Your task to perform on an android device: Search for sushi restaurants on Maps Image 0: 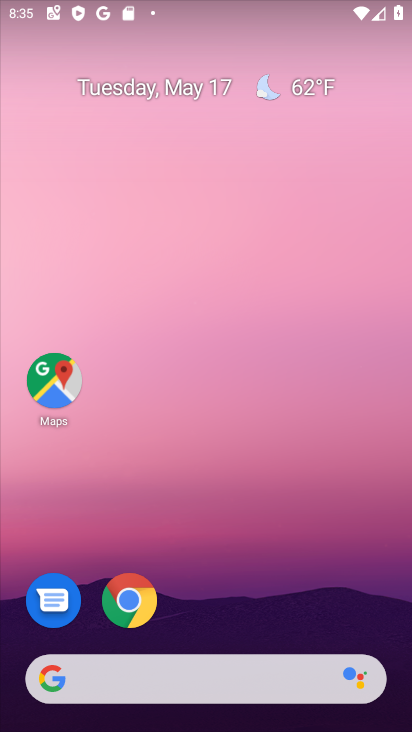
Step 0: drag from (242, 726) to (238, 100)
Your task to perform on an android device: Search for sushi restaurants on Maps Image 1: 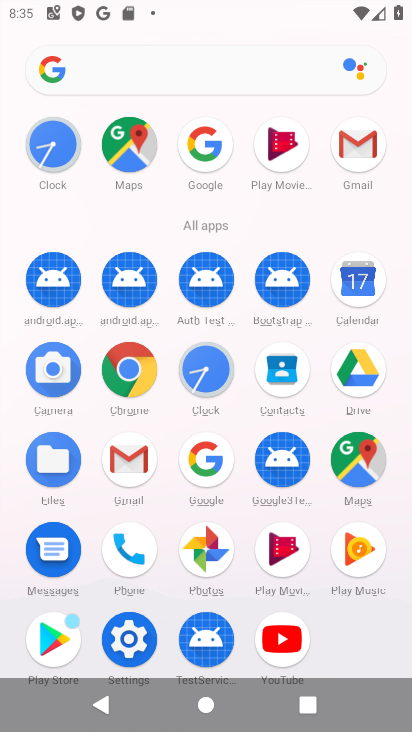
Step 1: click (352, 458)
Your task to perform on an android device: Search for sushi restaurants on Maps Image 2: 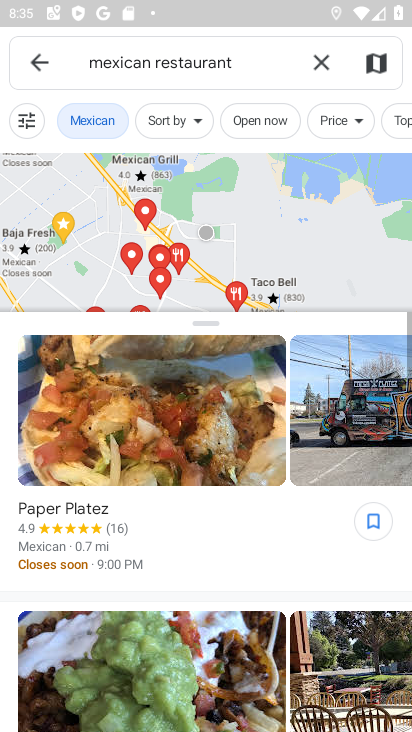
Step 2: click (325, 63)
Your task to perform on an android device: Search for sushi restaurants on Maps Image 3: 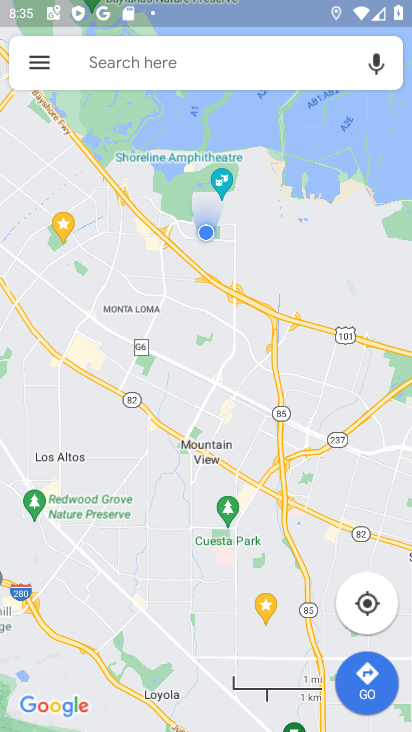
Step 3: click (204, 63)
Your task to perform on an android device: Search for sushi restaurants on Maps Image 4: 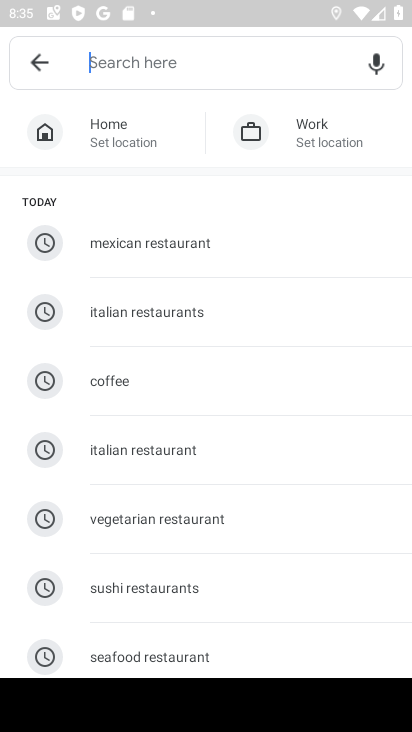
Step 4: type "sushi restaurants"
Your task to perform on an android device: Search for sushi restaurants on Maps Image 5: 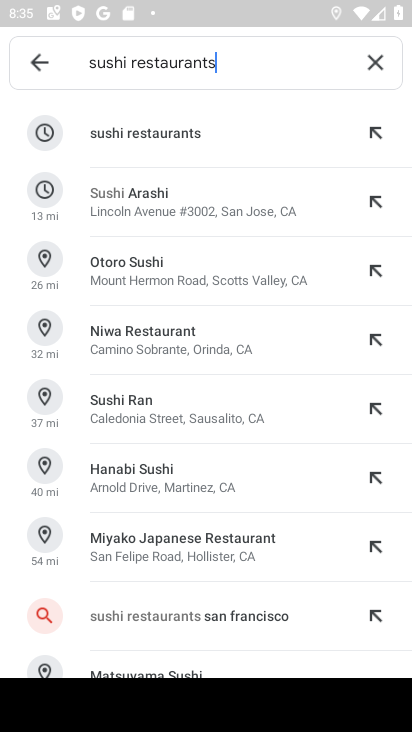
Step 5: click (183, 134)
Your task to perform on an android device: Search for sushi restaurants on Maps Image 6: 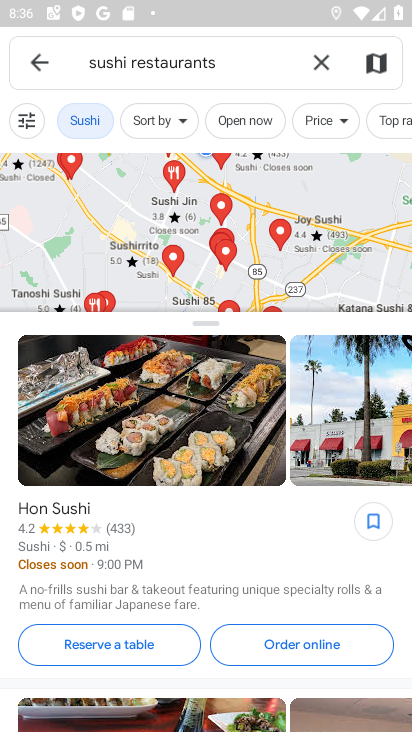
Step 6: task complete